Your task to perform on an android device: delete browsing data in the chrome app Image 0: 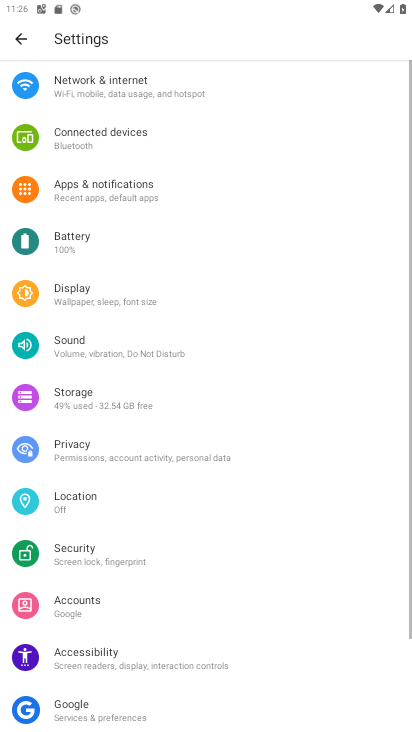
Step 0: press home button
Your task to perform on an android device: delete browsing data in the chrome app Image 1: 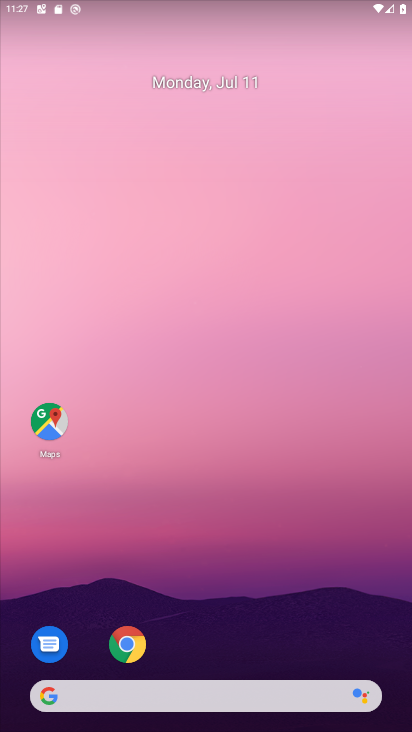
Step 1: click (126, 638)
Your task to perform on an android device: delete browsing data in the chrome app Image 2: 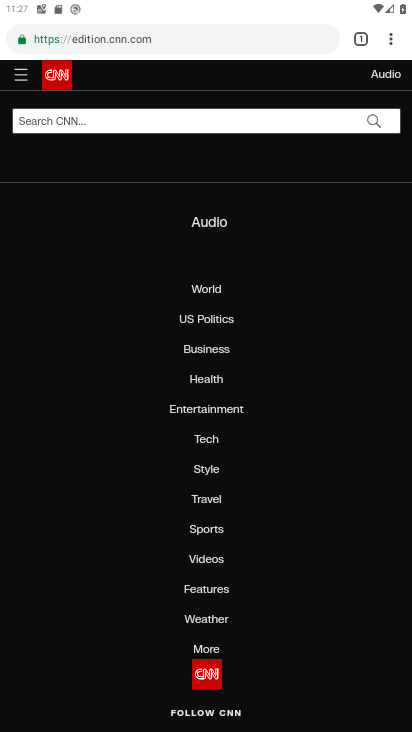
Step 2: click (395, 33)
Your task to perform on an android device: delete browsing data in the chrome app Image 3: 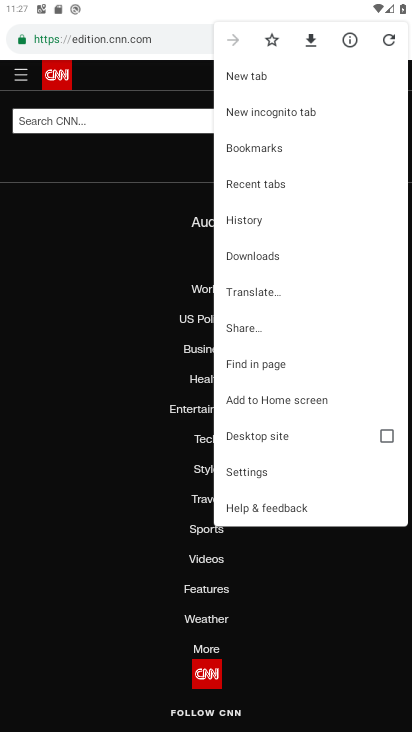
Step 3: click (247, 227)
Your task to perform on an android device: delete browsing data in the chrome app Image 4: 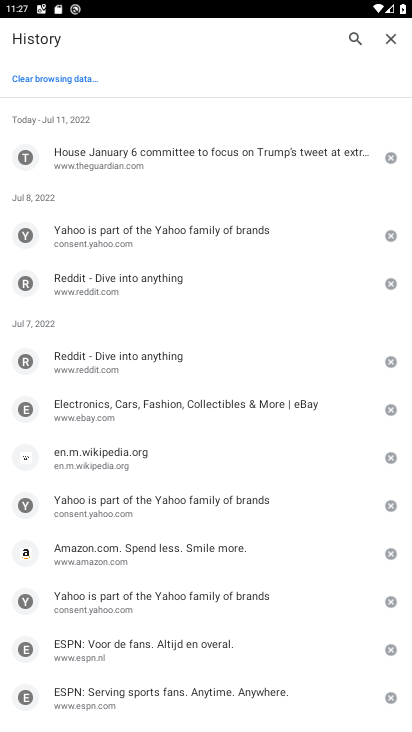
Step 4: click (71, 67)
Your task to perform on an android device: delete browsing data in the chrome app Image 5: 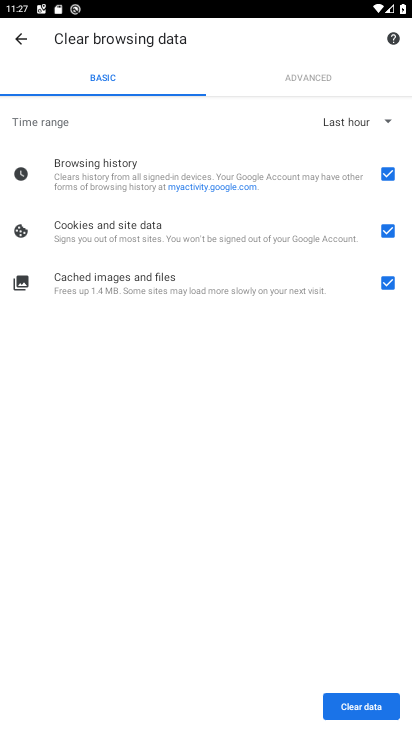
Step 5: click (361, 716)
Your task to perform on an android device: delete browsing data in the chrome app Image 6: 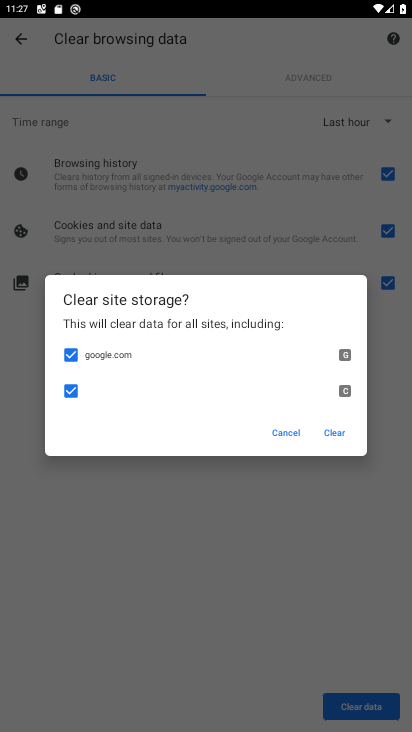
Step 6: click (334, 428)
Your task to perform on an android device: delete browsing data in the chrome app Image 7: 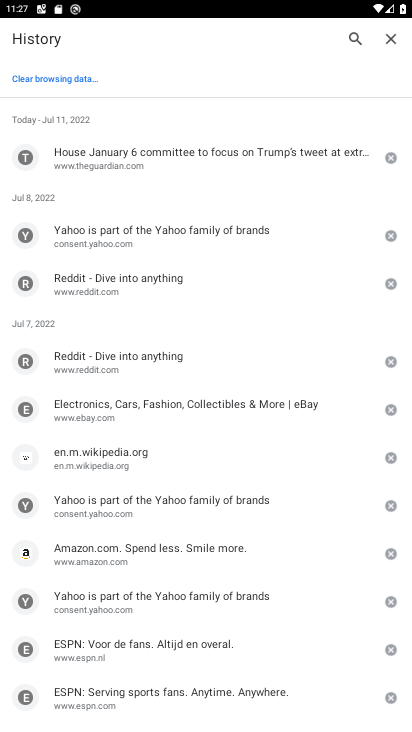
Step 7: task complete